Your task to perform on an android device: Search for a new desk on Ikea Image 0: 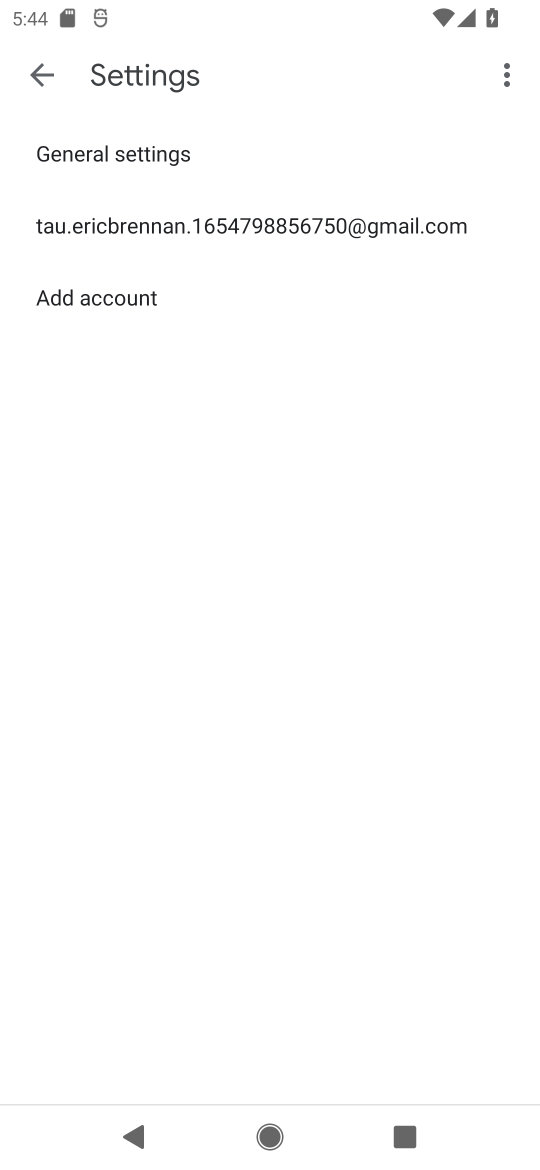
Step 0: press home button
Your task to perform on an android device: Search for a new desk on Ikea Image 1: 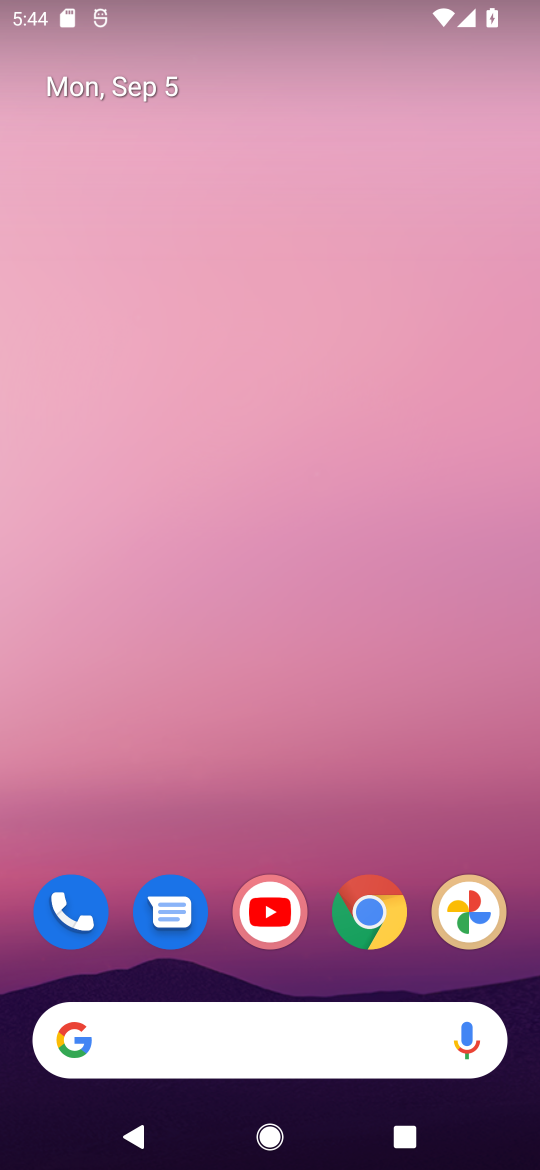
Step 1: click (374, 903)
Your task to perform on an android device: Search for a new desk on Ikea Image 2: 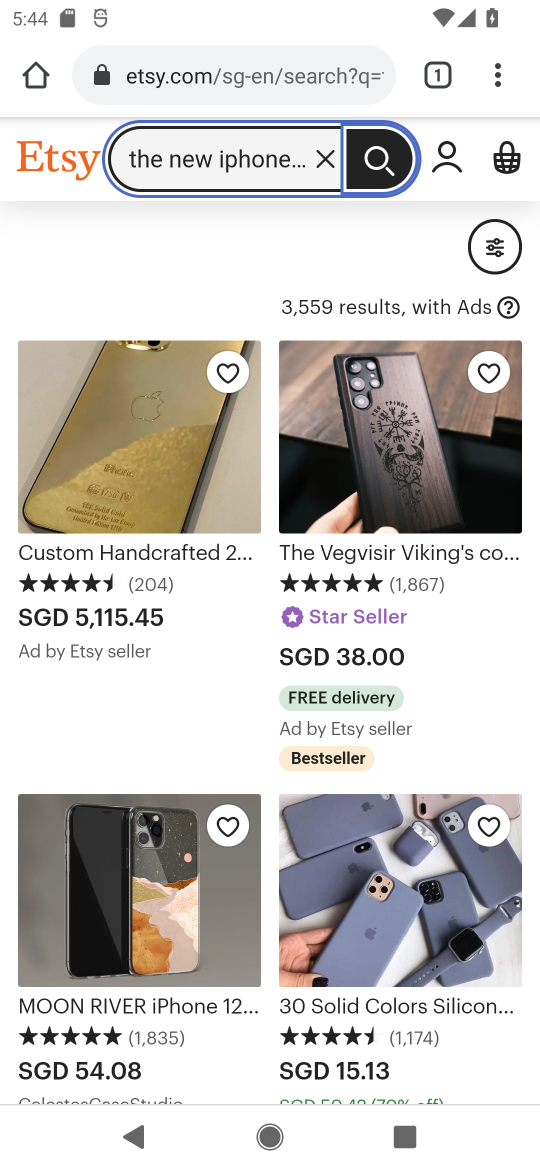
Step 2: click (227, 71)
Your task to perform on an android device: Search for a new desk on Ikea Image 3: 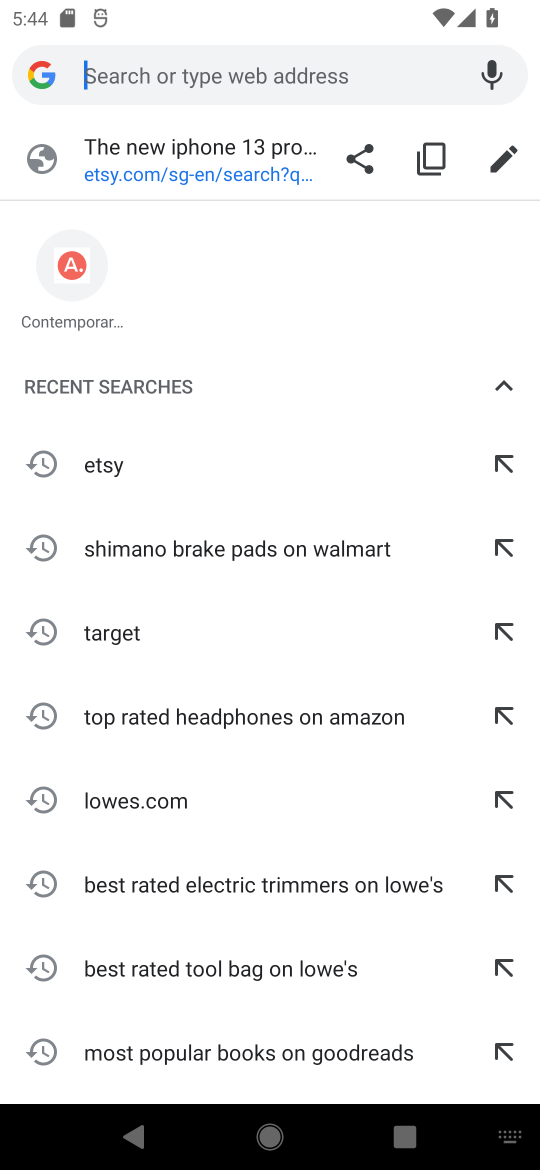
Step 3: type "Ikea"
Your task to perform on an android device: Search for a new desk on Ikea Image 4: 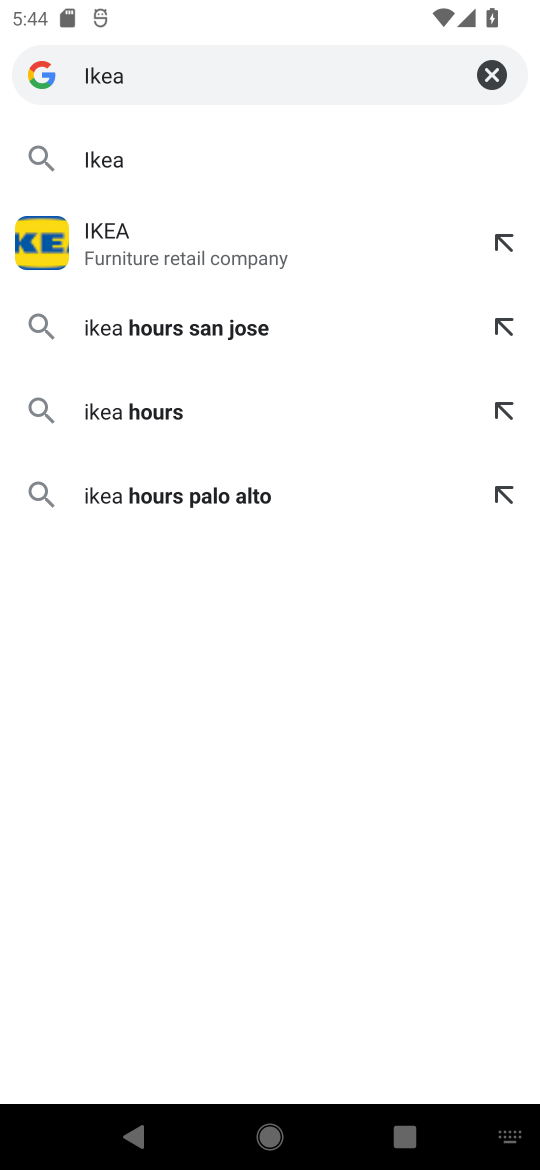
Step 4: click (140, 234)
Your task to perform on an android device: Search for a new desk on Ikea Image 5: 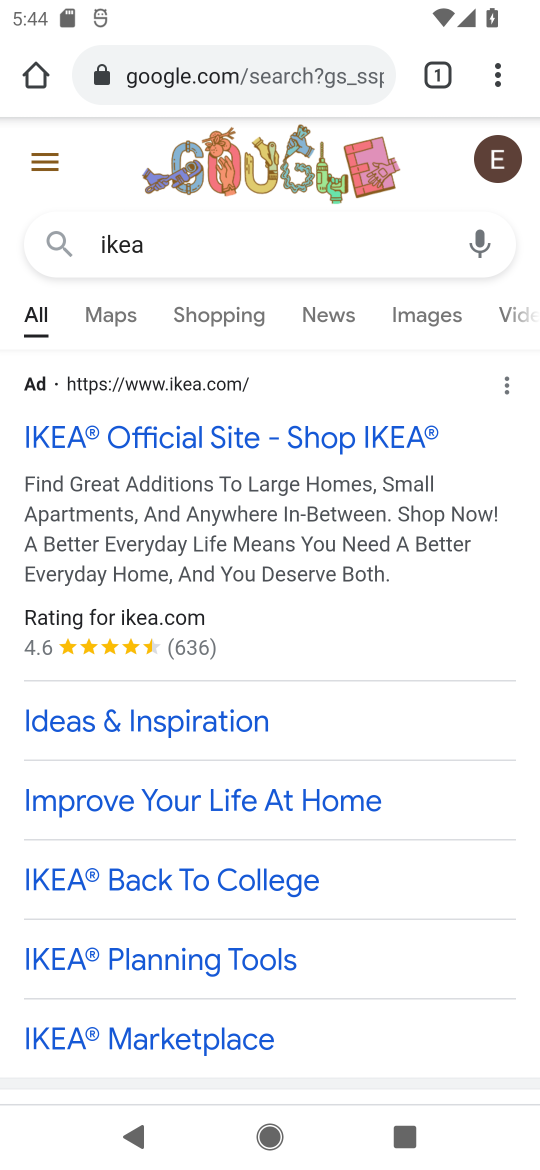
Step 5: click (181, 452)
Your task to perform on an android device: Search for a new desk on Ikea Image 6: 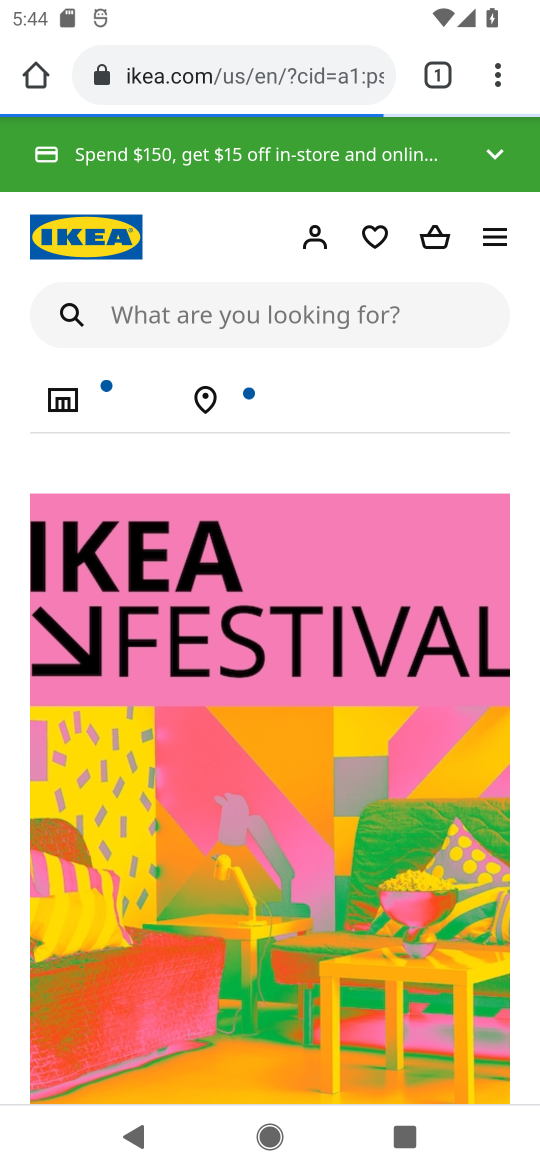
Step 6: click (231, 305)
Your task to perform on an android device: Search for a new desk on Ikea Image 7: 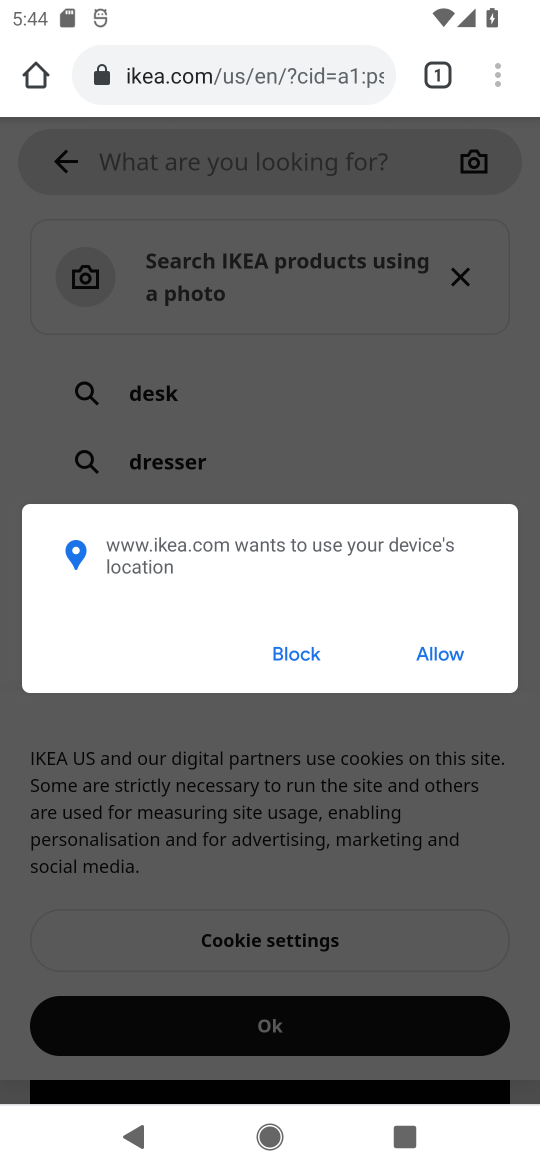
Step 7: click (439, 645)
Your task to perform on an android device: Search for a new desk on Ikea Image 8: 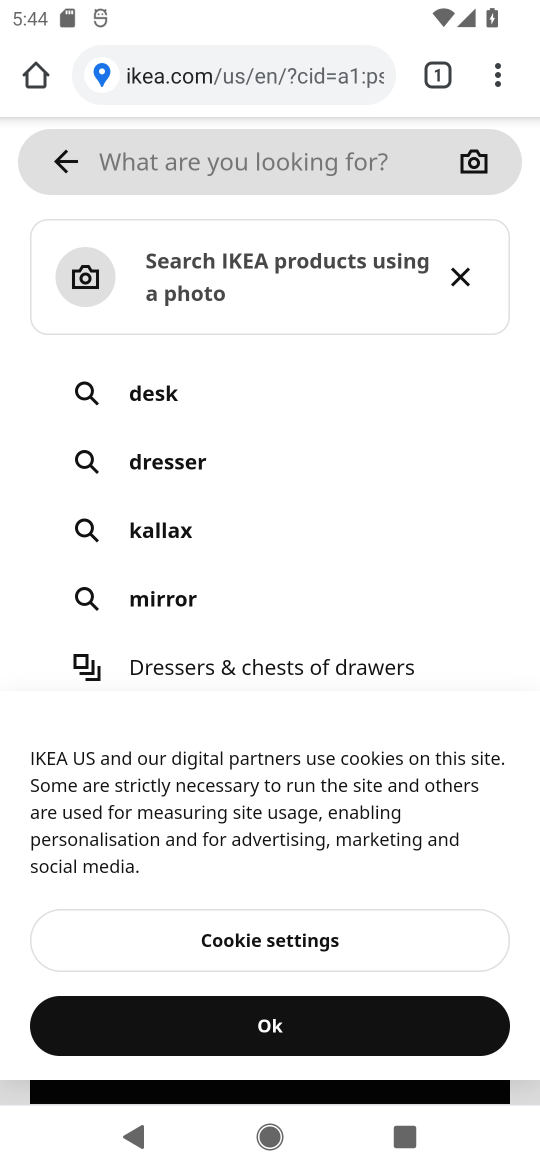
Step 8: click (271, 145)
Your task to perform on an android device: Search for a new desk on Ikea Image 9: 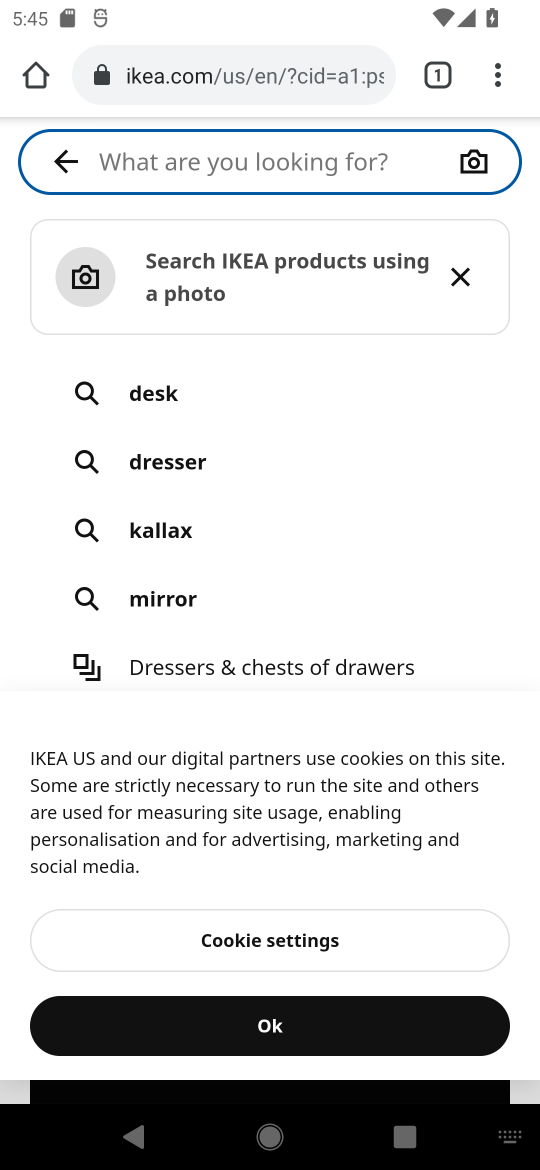
Step 9: type "a new desk on Ikea"
Your task to perform on an android device: Search for a new desk on Ikea Image 10: 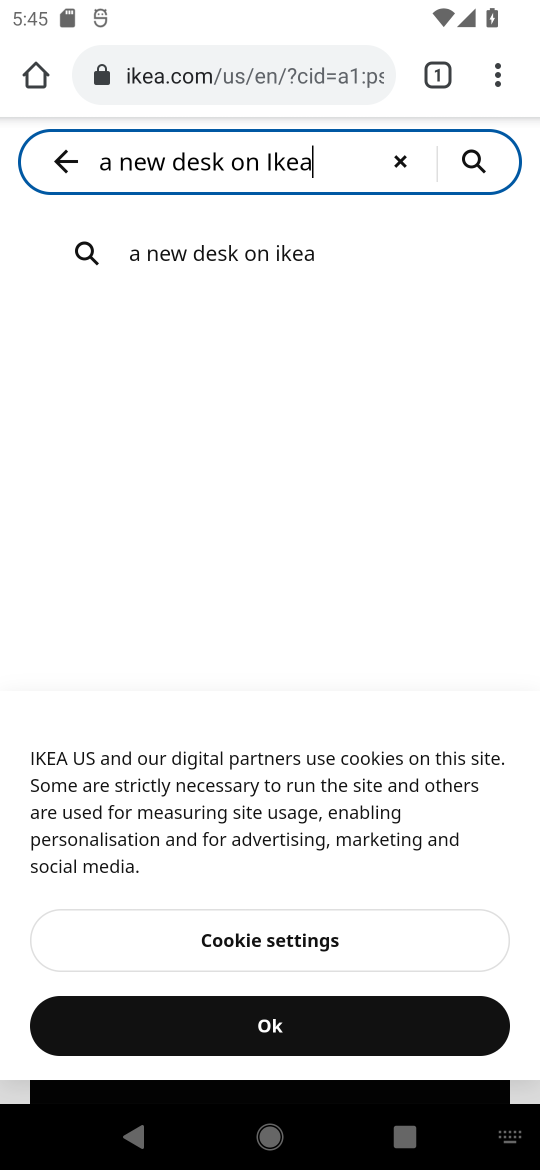
Step 10: click (204, 255)
Your task to perform on an android device: Search for a new desk on Ikea Image 11: 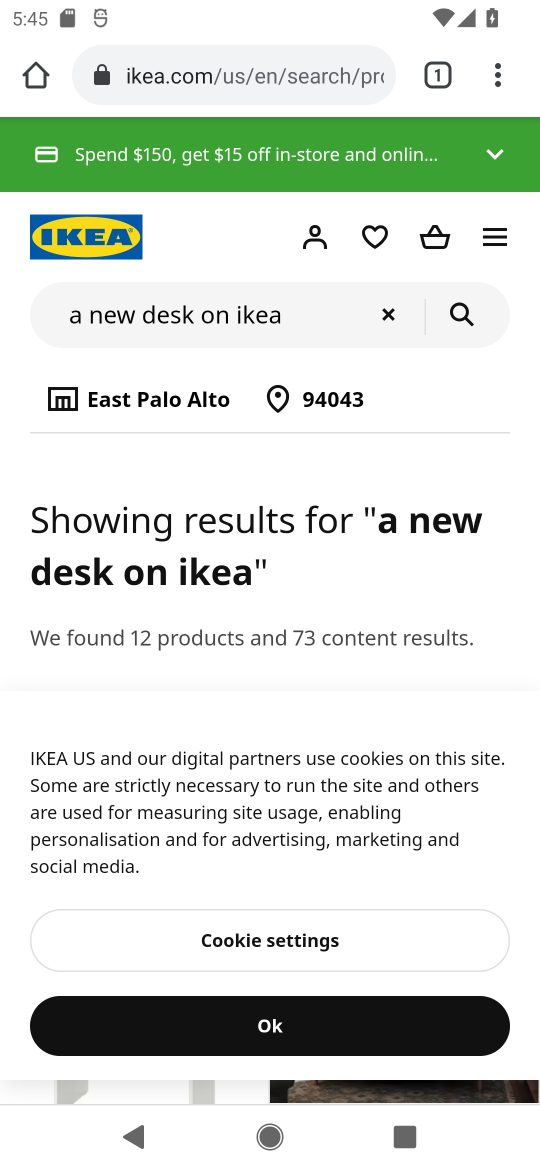
Step 11: click (277, 1022)
Your task to perform on an android device: Search for a new desk on Ikea Image 12: 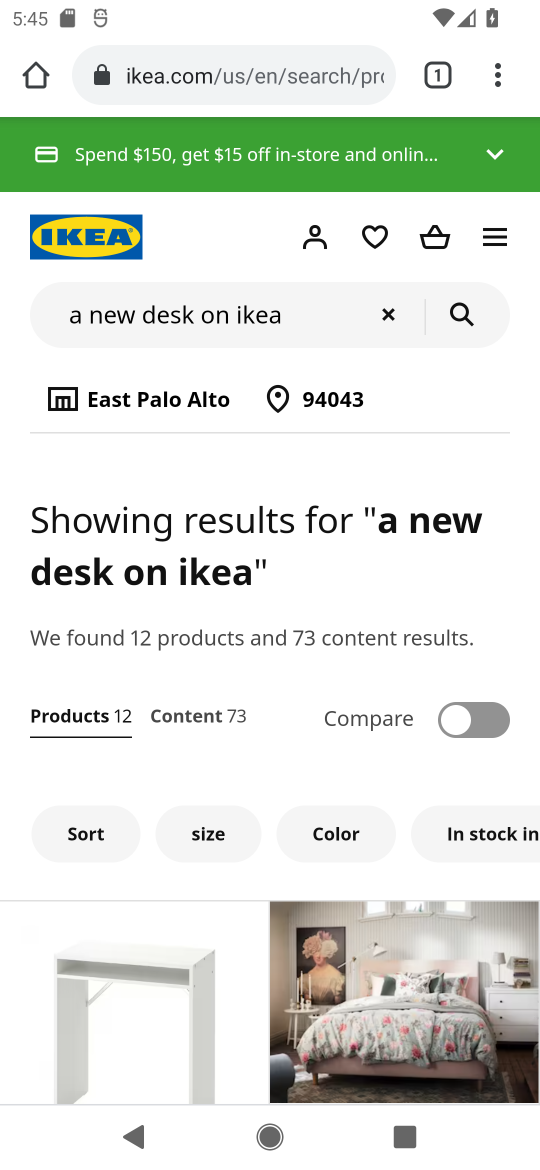
Step 12: task complete